Your task to perform on an android device: Open location settings Image 0: 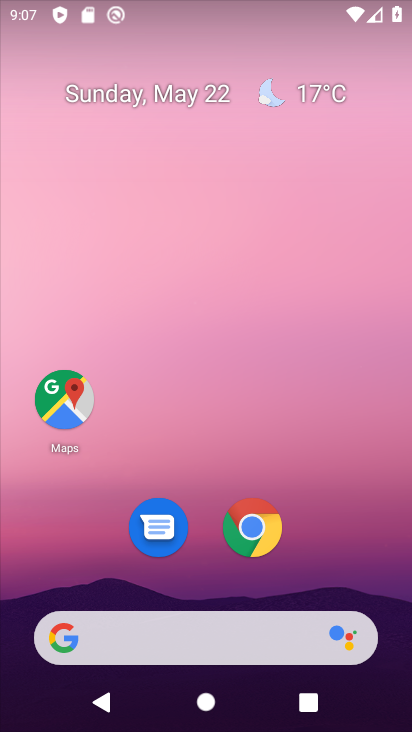
Step 0: drag from (336, 532) to (185, 1)
Your task to perform on an android device: Open location settings Image 1: 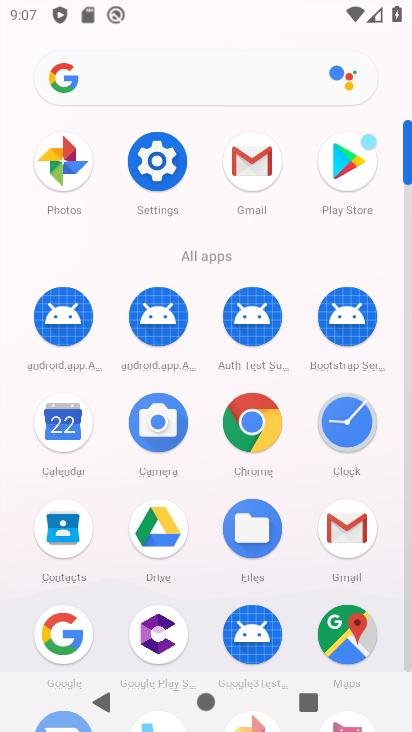
Step 1: click (159, 162)
Your task to perform on an android device: Open location settings Image 2: 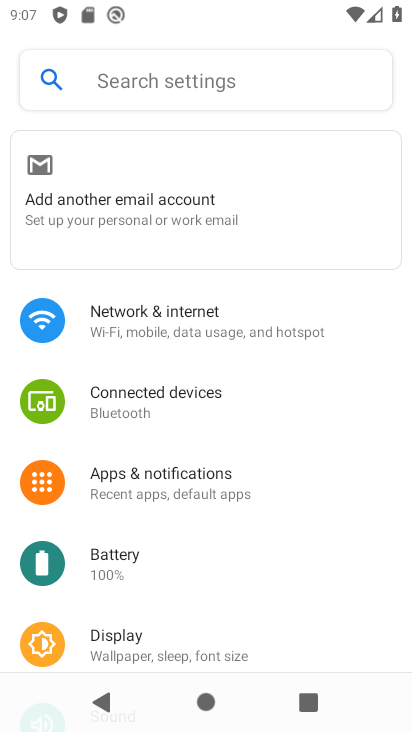
Step 2: drag from (251, 551) to (216, 175)
Your task to perform on an android device: Open location settings Image 3: 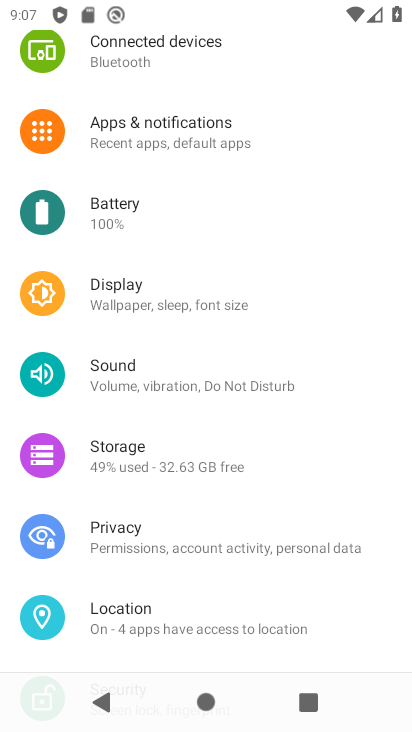
Step 3: click (125, 613)
Your task to perform on an android device: Open location settings Image 4: 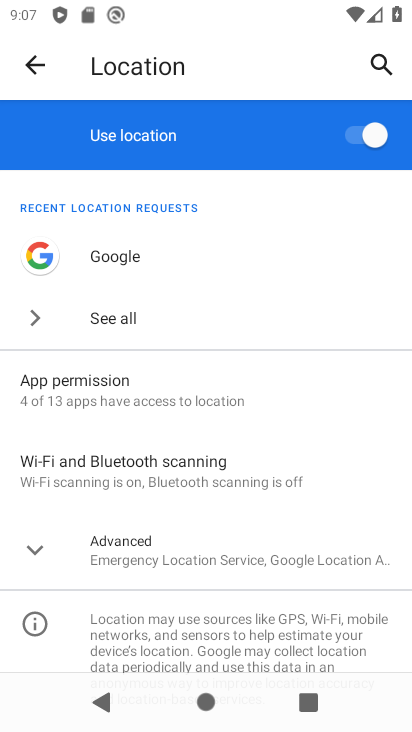
Step 4: task complete